Your task to perform on an android device: find which apps use the phone's location Image 0: 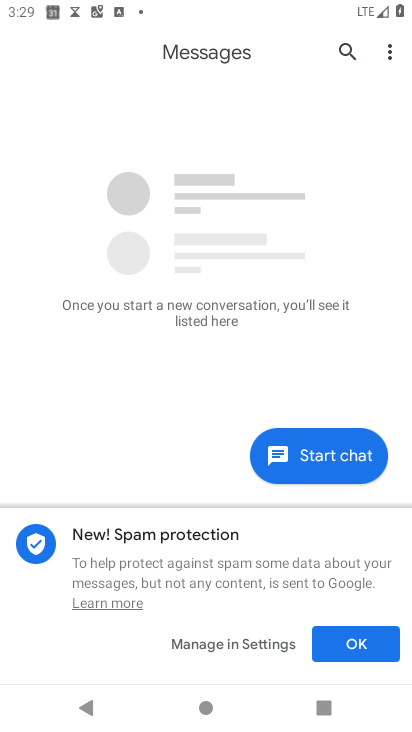
Step 0: press home button
Your task to perform on an android device: find which apps use the phone's location Image 1: 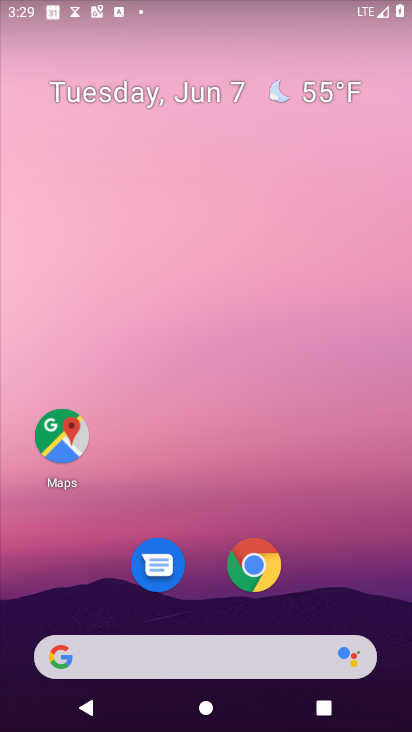
Step 1: drag from (284, 650) to (263, 10)
Your task to perform on an android device: find which apps use the phone's location Image 2: 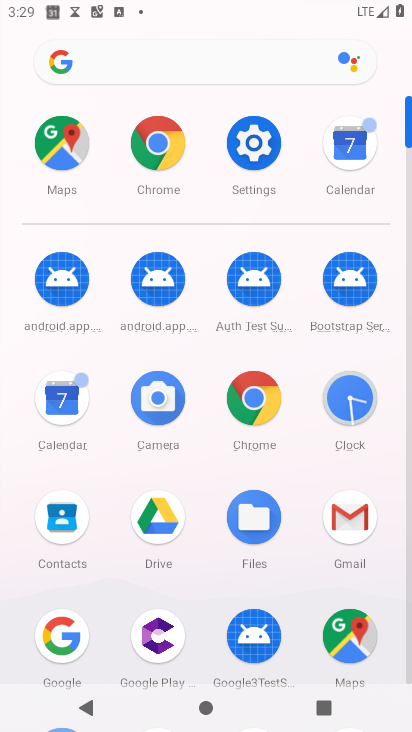
Step 2: click (258, 132)
Your task to perform on an android device: find which apps use the phone's location Image 3: 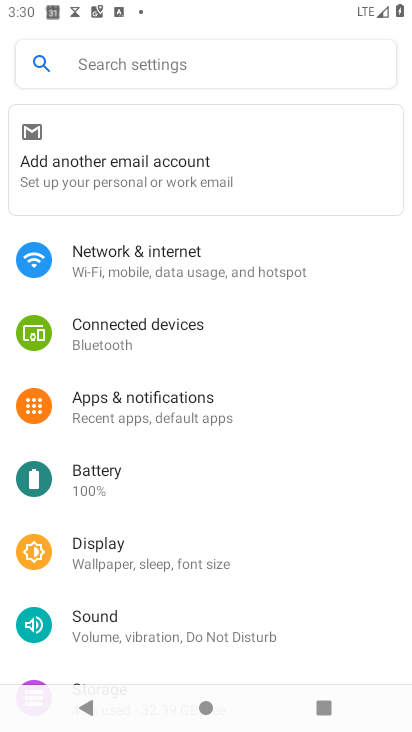
Step 3: drag from (248, 658) to (247, 160)
Your task to perform on an android device: find which apps use the phone's location Image 4: 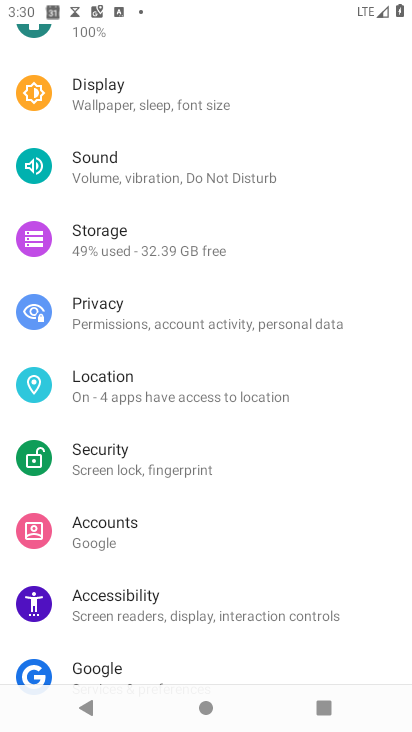
Step 4: click (166, 399)
Your task to perform on an android device: find which apps use the phone's location Image 5: 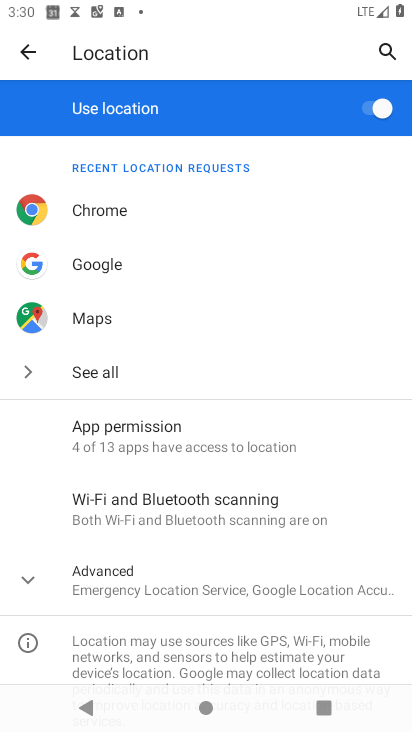
Step 5: click (231, 439)
Your task to perform on an android device: find which apps use the phone's location Image 6: 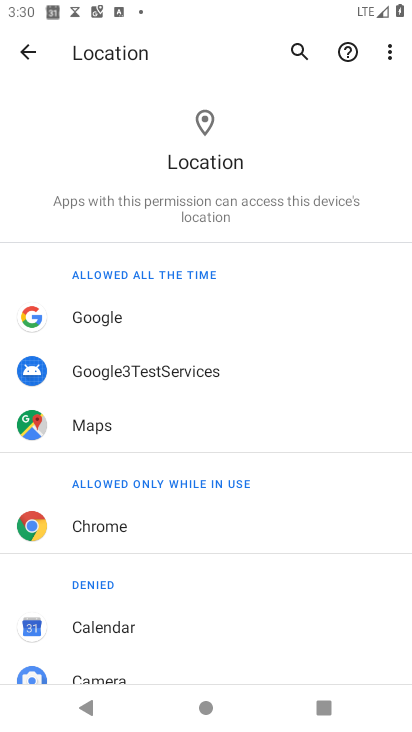
Step 6: task complete